Your task to perform on an android device: make emails show in primary in the gmail app Image 0: 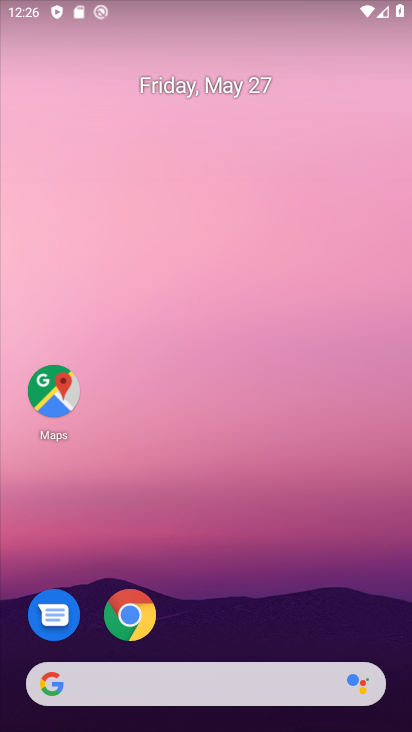
Step 0: drag from (291, 637) to (270, 122)
Your task to perform on an android device: make emails show in primary in the gmail app Image 1: 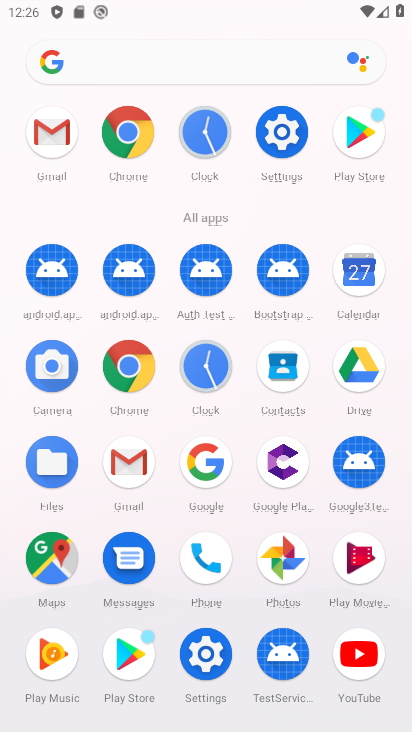
Step 1: click (59, 136)
Your task to perform on an android device: make emails show in primary in the gmail app Image 2: 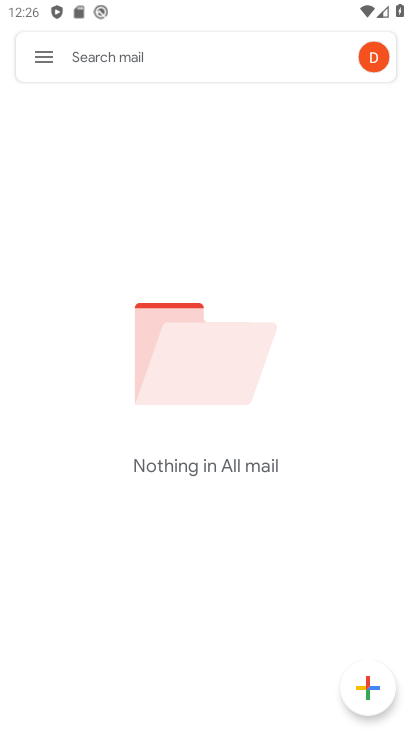
Step 2: click (39, 66)
Your task to perform on an android device: make emails show in primary in the gmail app Image 3: 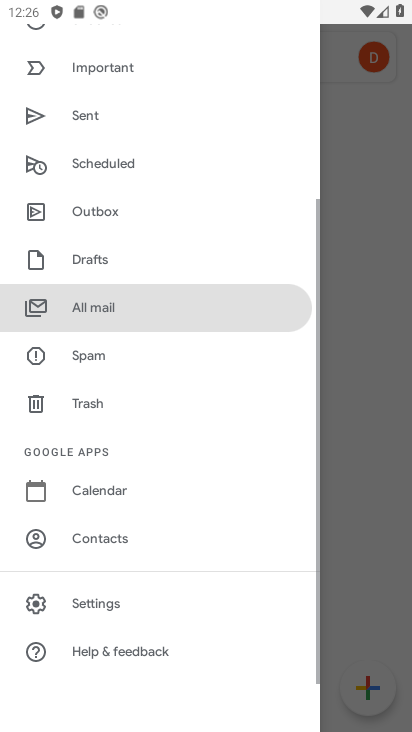
Step 3: click (114, 607)
Your task to perform on an android device: make emails show in primary in the gmail app Image 4: 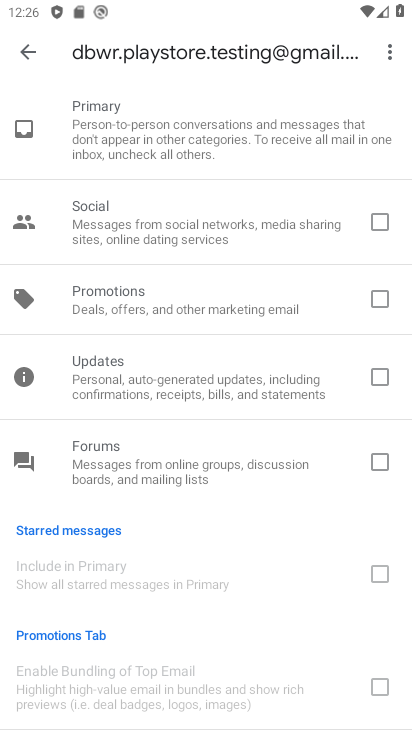
Step 4: task complete